Your task to perform on an android device: Open Chrome and go to settings Image 0: 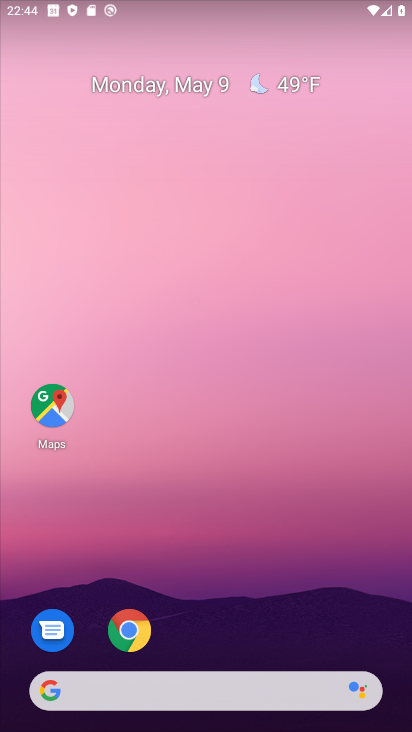
Step 0: click (139, 642)
Your task to perform on an android device: Open Chrome and go to settings Image 1: 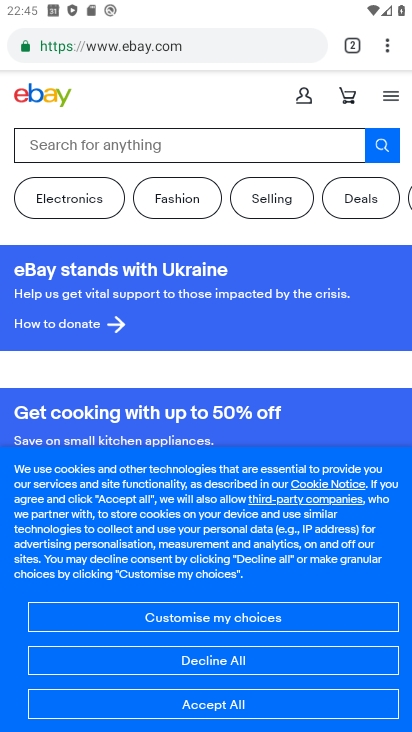
Step 1: task complete